Your task to perform on an android device: turn on showing notifications on the lock screen Image 0: 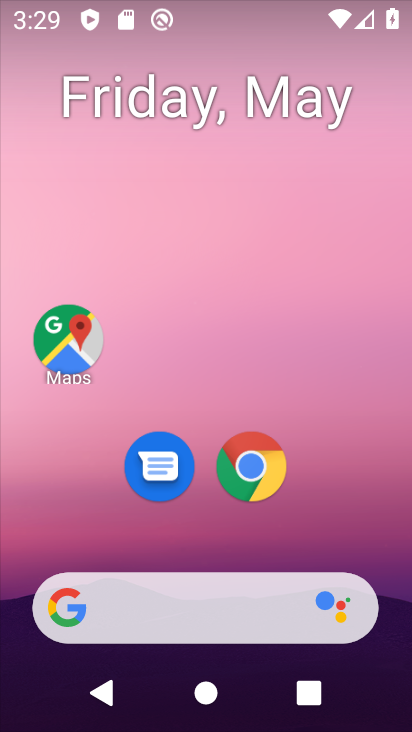
Step 0: drag from (384, 522) to (342, 218)
Your task to perform on an android device: turn on showing notifications on the lock screen Image 1: 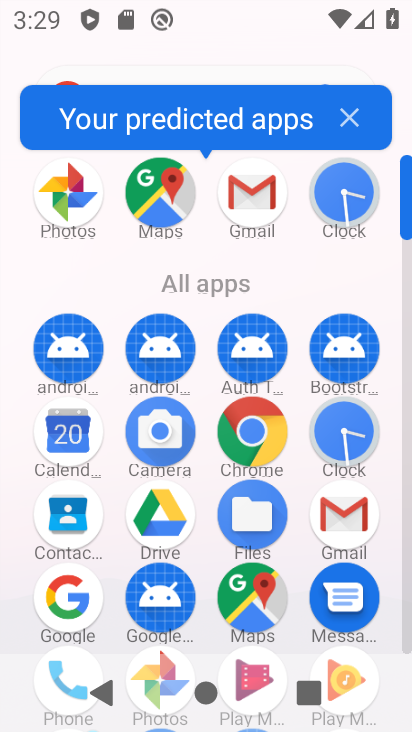
Step 1: click (411, 629)
Your task to perform on an android device: turn on showing notifications on the lock screen Image 2: 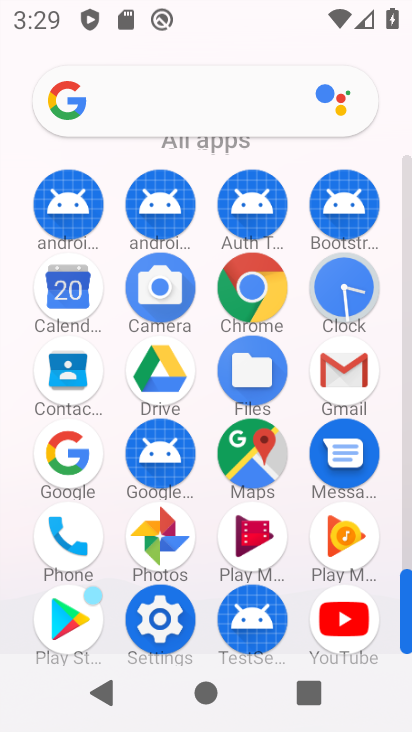
Step 2: click (167, 613)
Your task to perform on an android device: turn on showing notifications on the lock screen Image 3: 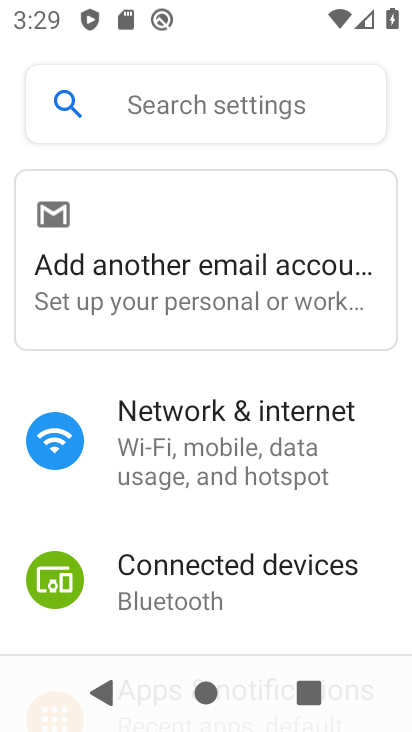
Step 3: drag from (266, 643) to (273, 272)
Your task to perform on an android device: turn on showing notifications on the lock screen Image 4: 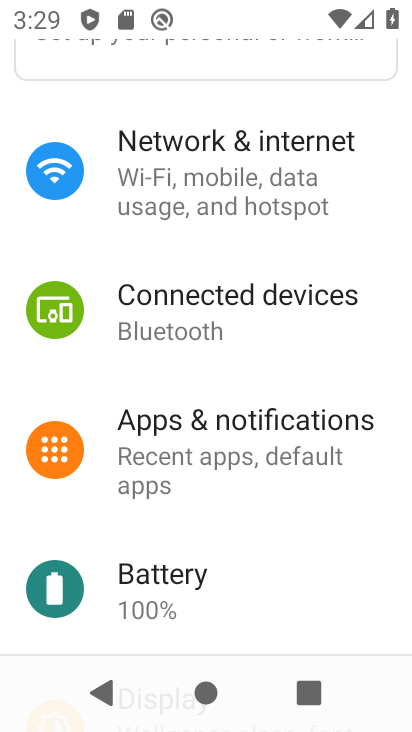
Step 4: click (287, 417)
Your task to perform on an android device: turn on showing notifications on the lock screen Image 5: 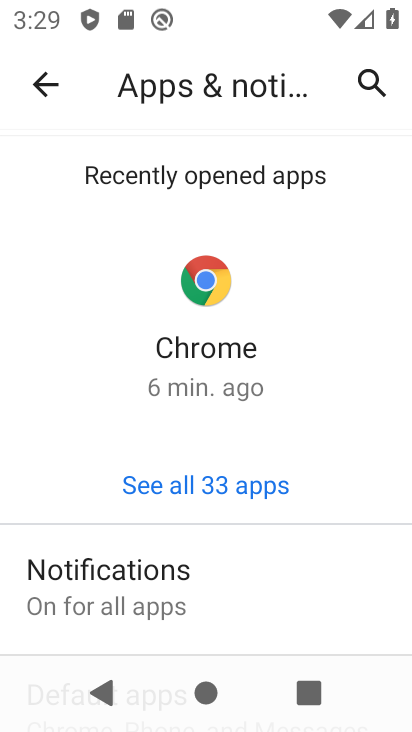
Step 5: drag from (288, 600) to (274, 250)
Your task to perform on an android device: turn on showing notifications on the lock screen Image 6: 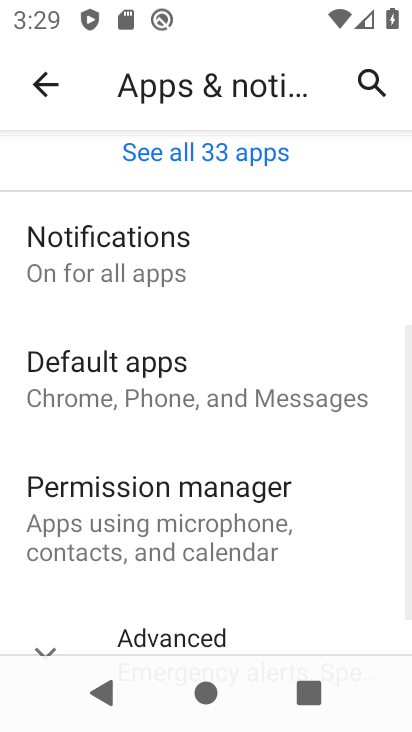
Step 6: click (270, 251)
Your task to perform on an android device: turn on showing notifications on the lock screen Image 7: 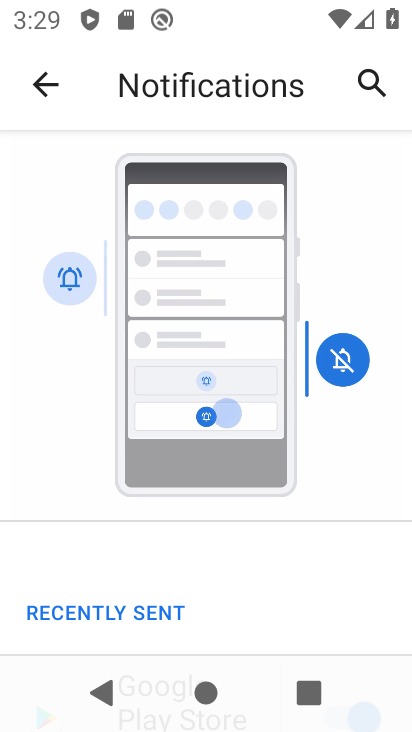
Step 7: drag from (253, 616) to (225, 212)
Your task to perform on an android device: turn on showing notifications on the lock screen Image 8: 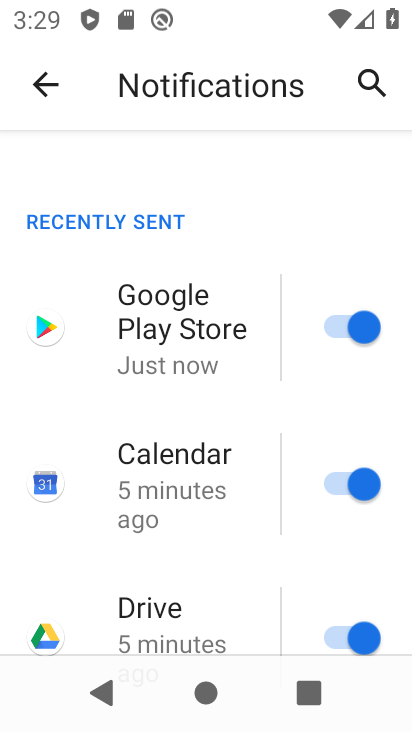
Step 8: drag from (248, 585) to (235, 168)
Your task to perform on an android device: turn on showing notifications on the lock screen Image 9: 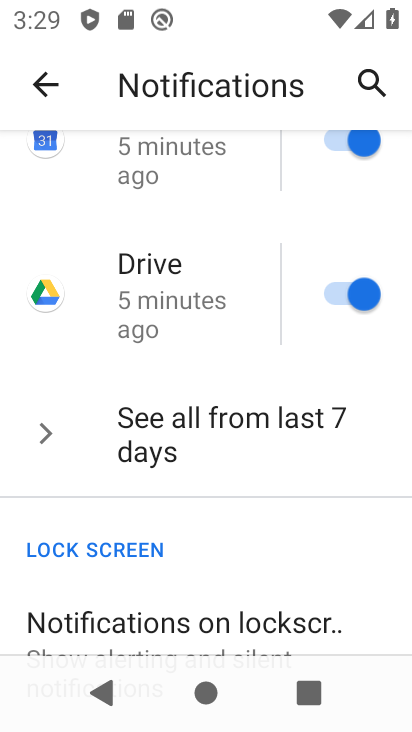
Step 9: drag from (264, 551) to (265, 366)
Your task to perform on an android device: turn on showing notifications on the lock screen Image 10: 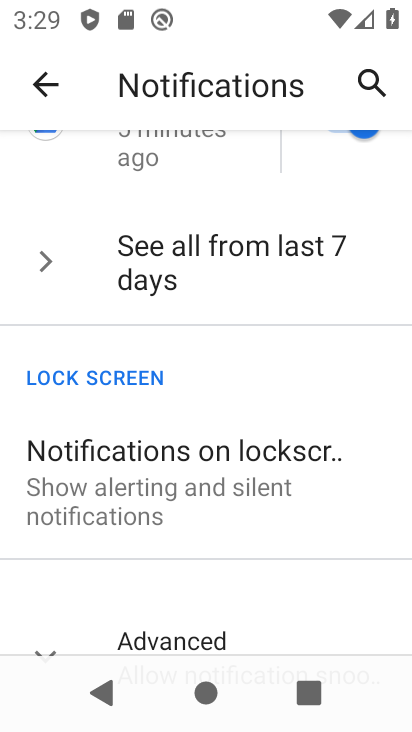
Step 10: click (255, 478)
Your task to perform on an android device: turn on showing notifications on the lock screen Image 11: 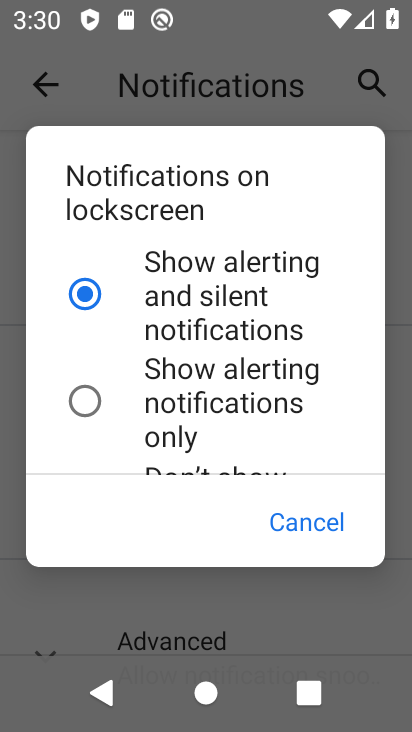
Step 11: task complete